Your task to perform on an android device: Go to eBay Image 0: 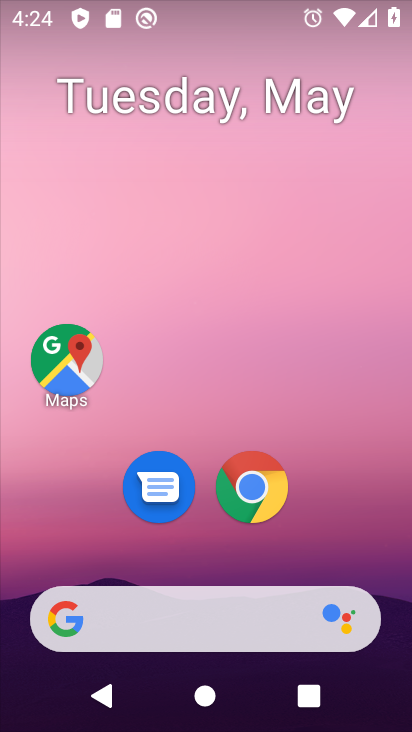
Step 0: click (234, 464)
Your task to perform on an android device: Go to eBay Image 1: 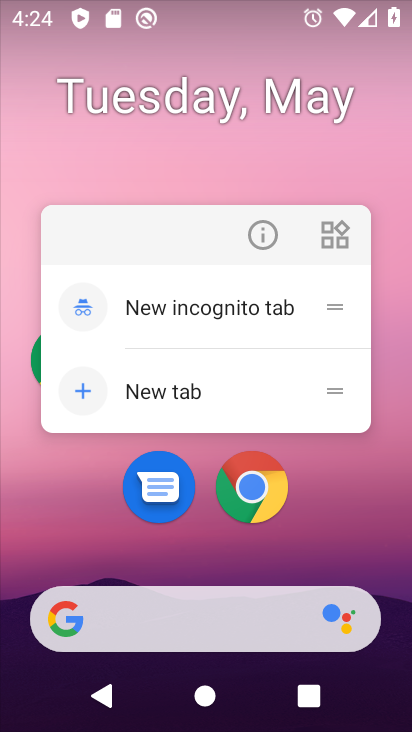
Step 1: click (246, 476)
Your task to perform on an android device: Go to eBay Image 2: 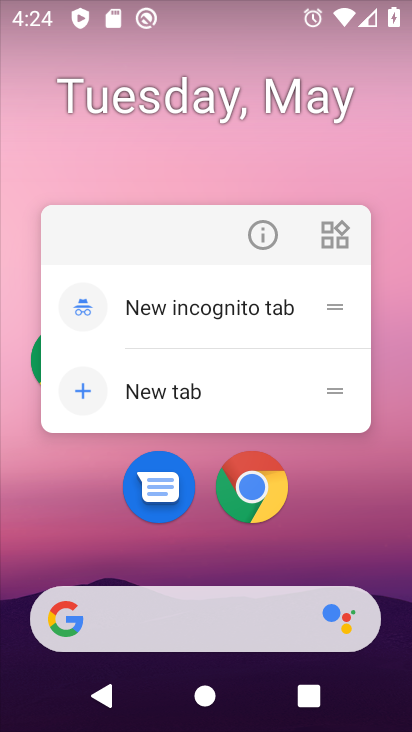
Step 2: click (239, 480)
Your task to perform on an android device: Go to eBay Image 3: 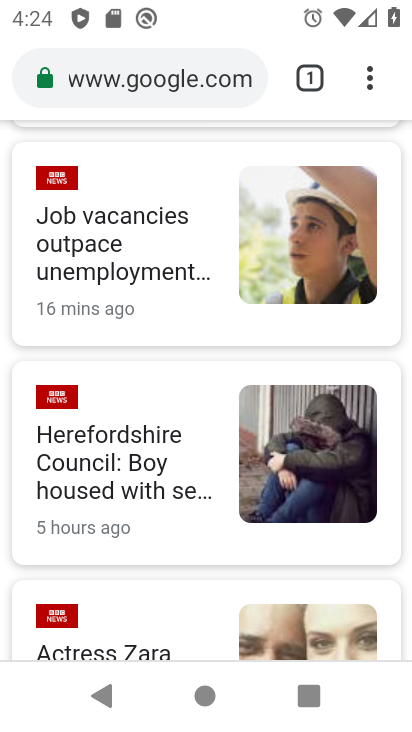
Step 3: drag from (160, 110) to (218, 640)
Your task to perform on an android device: Go to eBay Image 4: 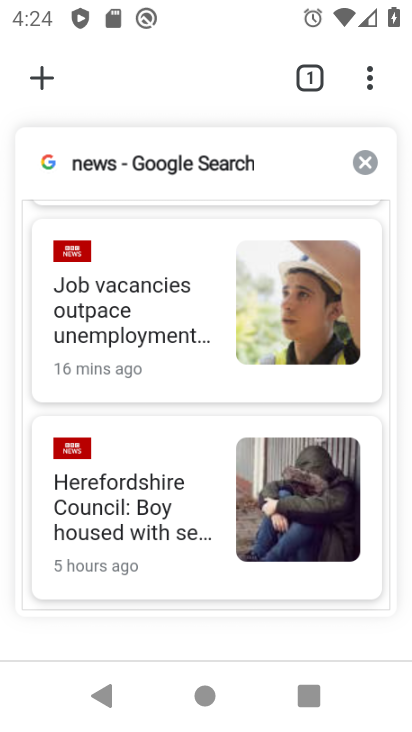
Step 4: click (159, 172)
Your task to perform on an android device: Go to eBay Image 5: 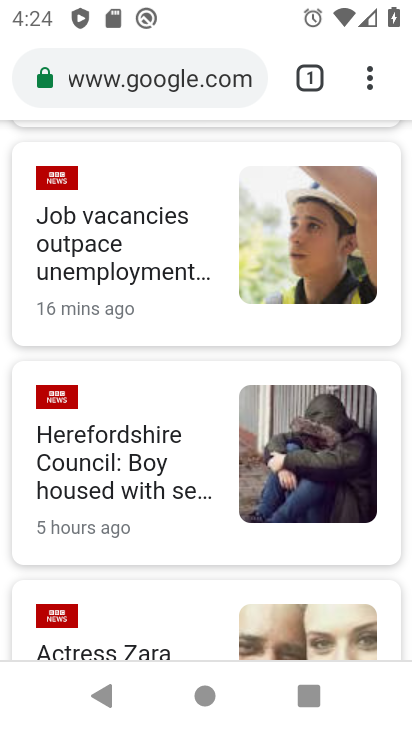
Step 5: click (152, 58)
Your task to perform on an android device: Go to eBay Image 6: 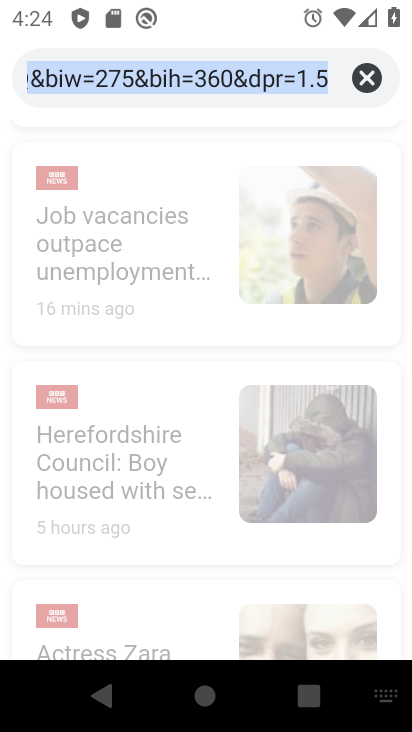
Step 6: type "ebay"
Your task to perform on an android device: Go to eBay Image 7: 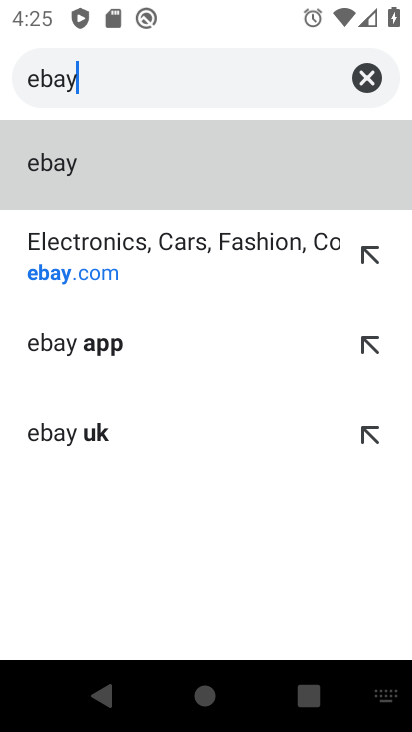
Step 7: click (79, 280)
Your task to perform on an android device: Go to eBay Image 8: 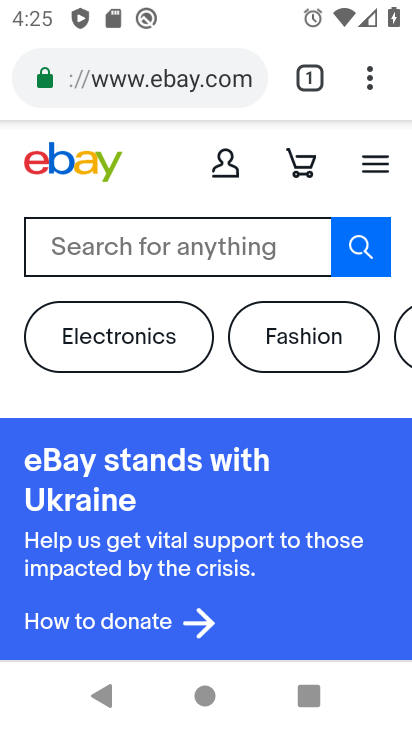
Step 8: task complete